Your task to perform on an android device: turn on javascript in the chrome app Image 0: 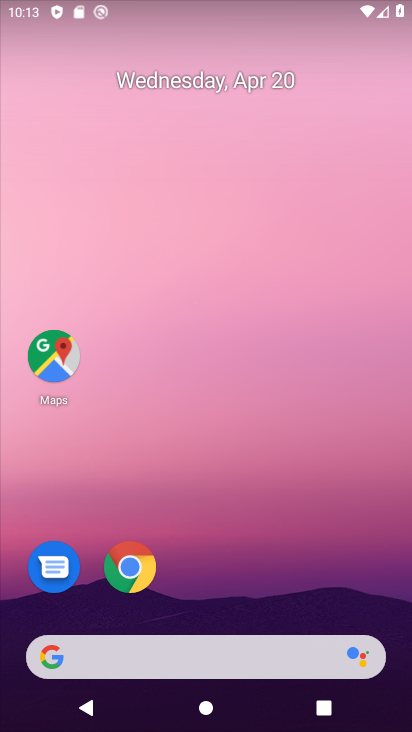
Step 0: click (131, 572)
Your task to perform on an android device: turn on javascript in the chrome app Image 1: 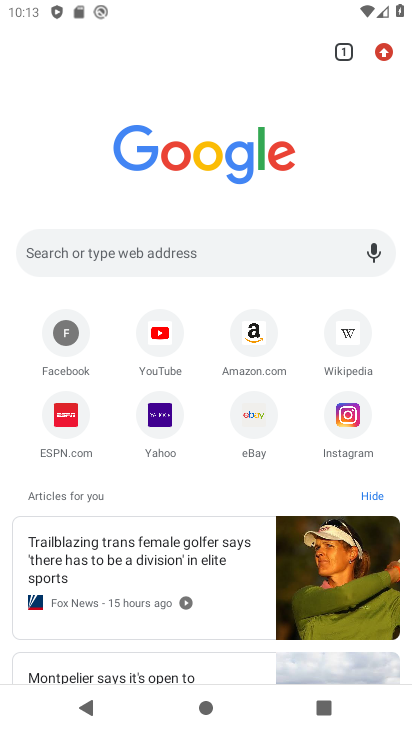
Step 1: click (383, 56)
Your task to perform on an android device: turn on javascript in the chrome app Image 2: 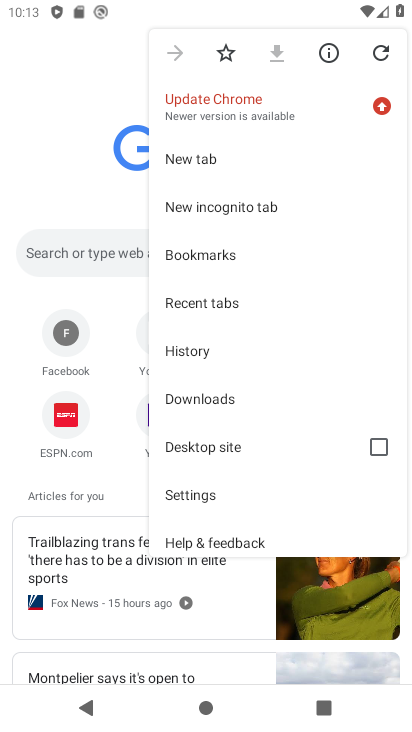
Step 2: click (189, 492)
Your task to perform on an android device: turn on javascript in the chrome app Image 3: 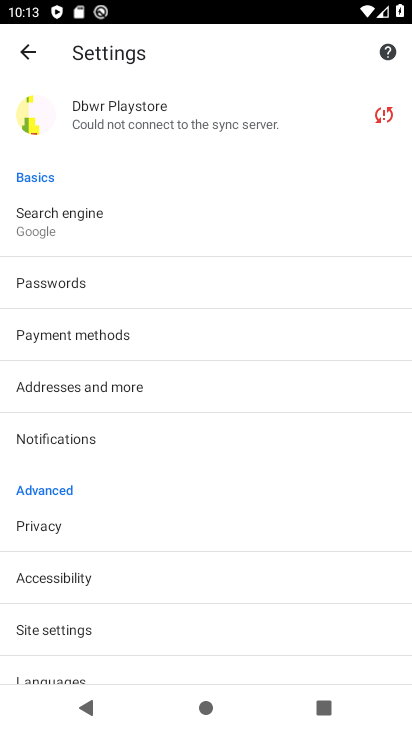
Step 3: click (67, 628)
Your task to perform on an android device: turn on javascript in the chrome app Image 4: 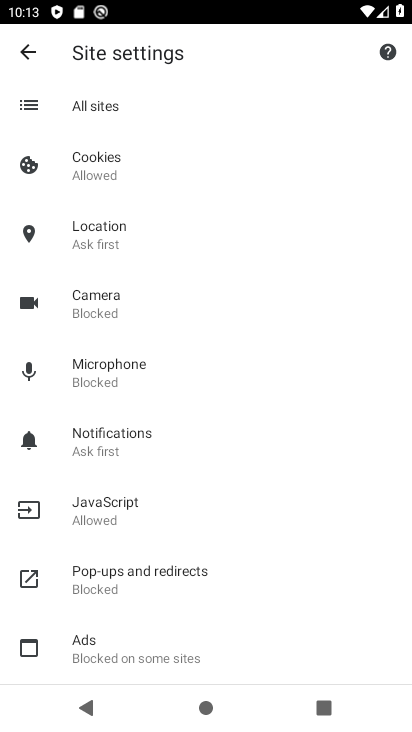
Step 4: click (104, 517)
Your task to perform on an android device: turn on javascript in the chrome app Image 5: 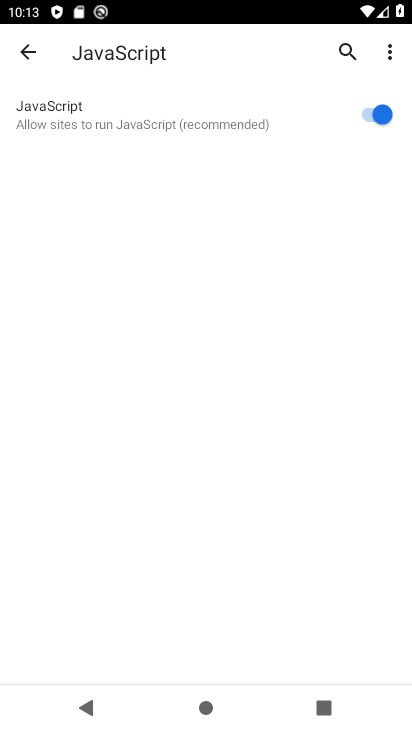
Step 5: task complete